Your task to perform on an android device: Open privacy settings Image 0: 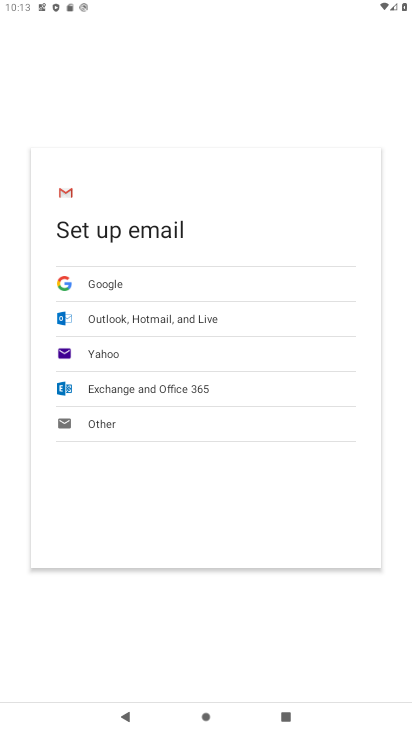
Step 0: press home button
Your task to perform on an android device: Open privacy settings Image 1: 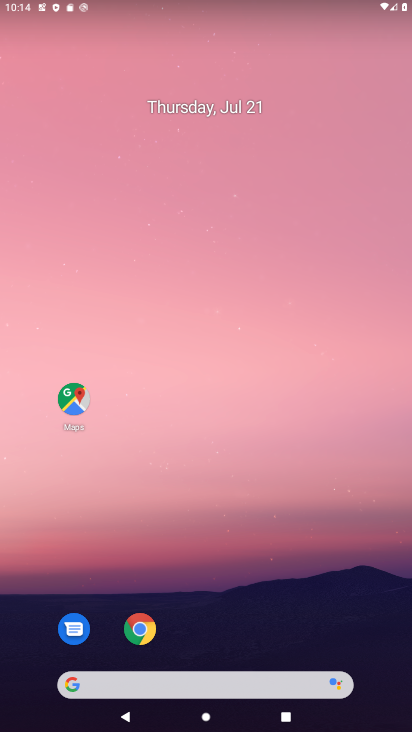
Step 1: drag from (241, 618) to (258, 166)
Your task to perform on an android device: Open privacy settings Image 2: 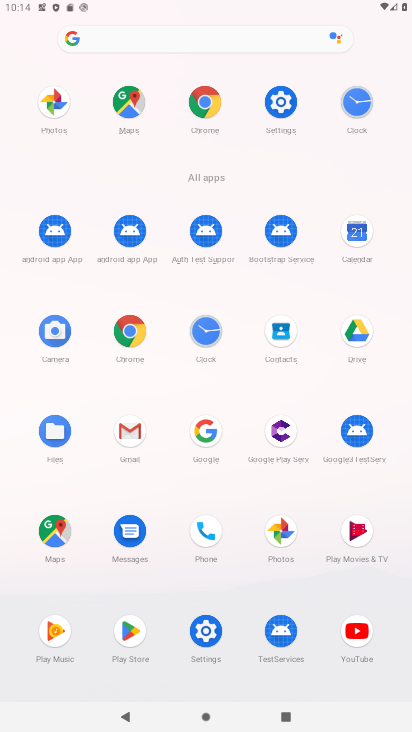
Step 2: click (213, 619)
Your task to perform on an android device: Open privacy settings Image 3: 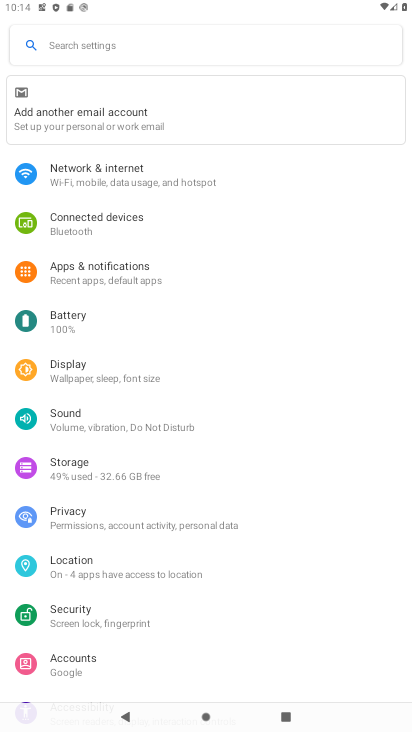
Step 3: click (59, 523)
Your task to perform on an android device: Open privacy settings Image 4: 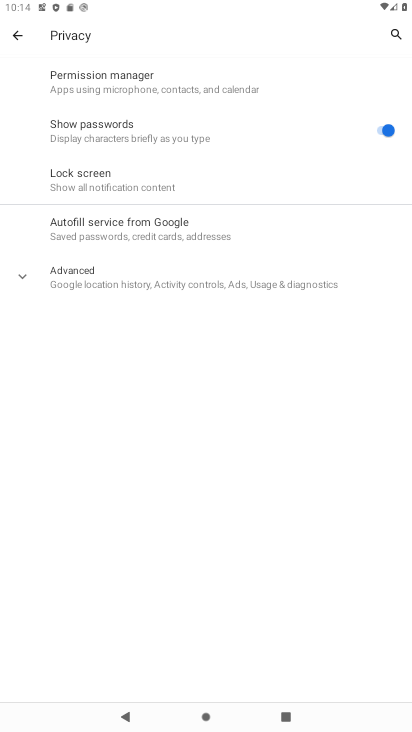
Step 4: task complete